Your task to perform on an android device: Clear the cart on ebay. Add alienware aurora to the cart on ebay Image 0: 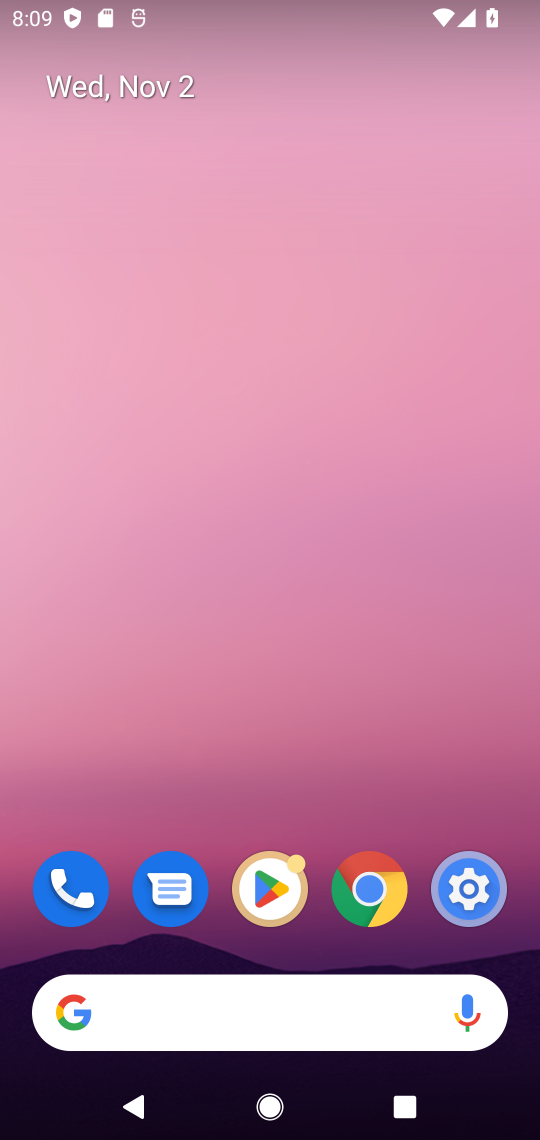
Step 0: drag from (326, 789) to (323, 65)
Your task to perform on an android device: Clear the cart on ebay. Add alienware aurora to the cart on ebay Image 1: 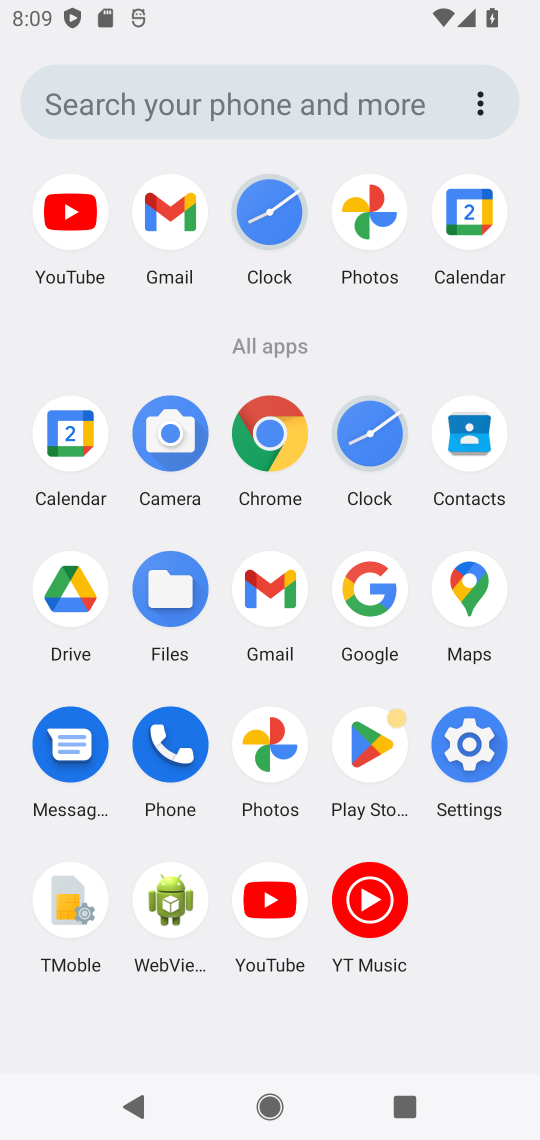
Step 1: click (270, 440)
Your task to perform on an android device: Clear the cart on ebay. Add alienware aurora to the cart on ebay Image 2: 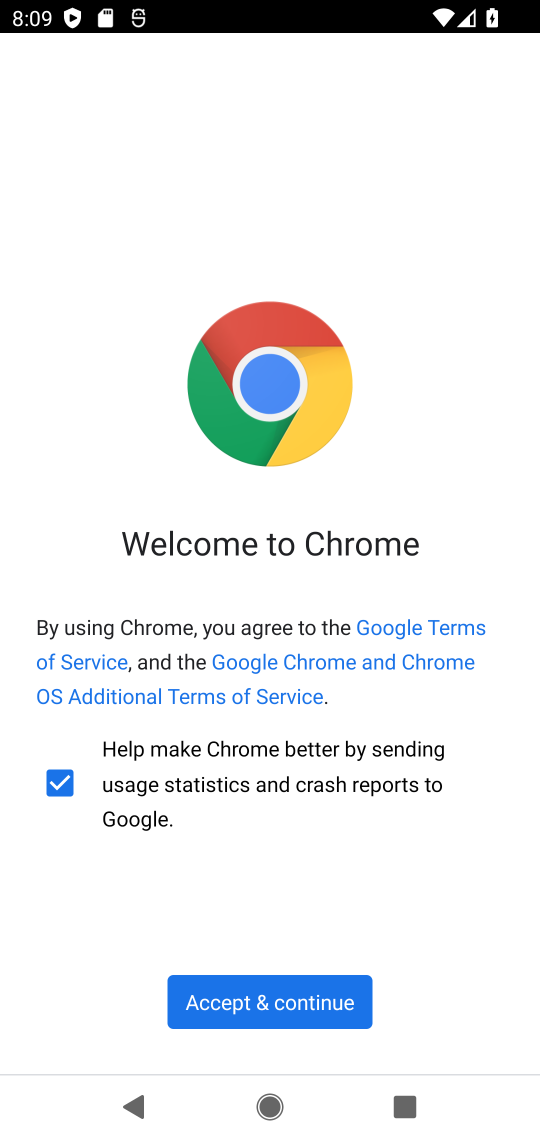
Step 2: click (283, 1006)
Your task to perform on an android device: Clear the cart on ebay. Add alienware aurora to the cart on ebay Image 3: 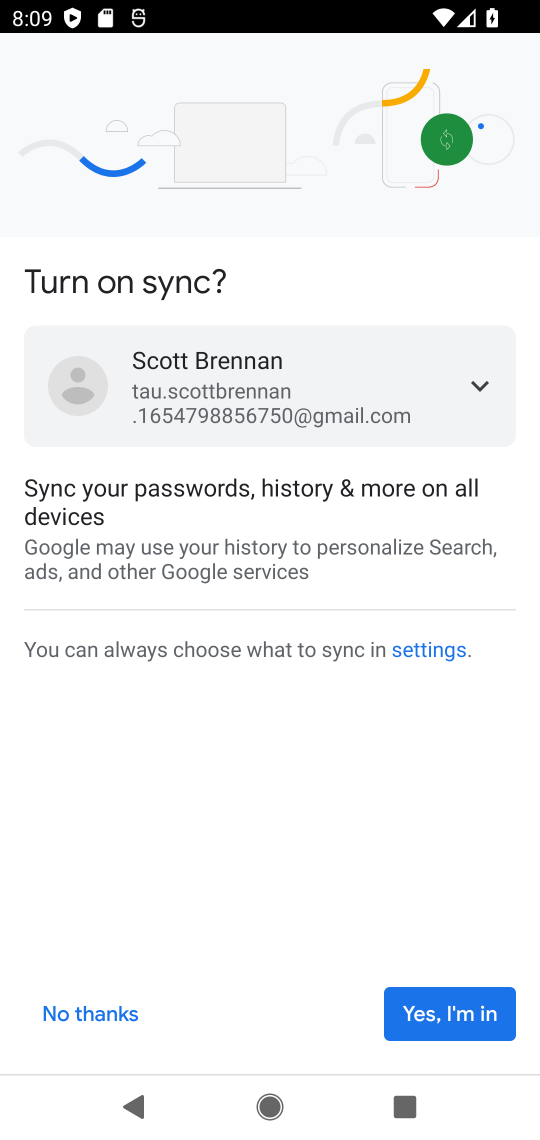
Step 3: click (438, 1014)
Your task to perform on an android device: Clear the cart on ebay. Add alienware aurora to the cart on ebay Image 4: 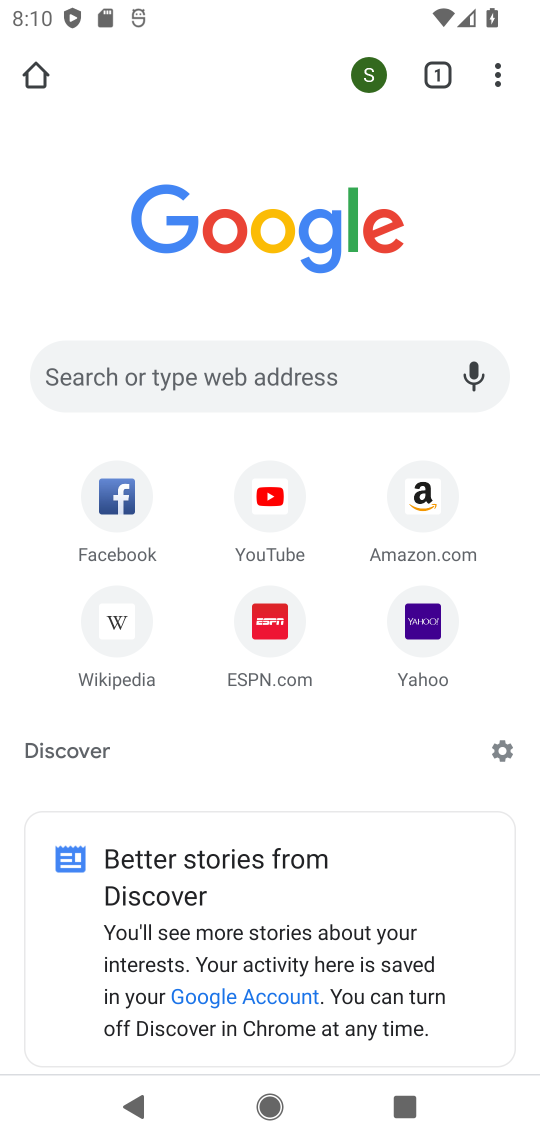
Step 4: click (190, 371)
Your task to perform on an android device: Clear the cart on ebay. Add alienware aurora to the cart on ebay Image 5: 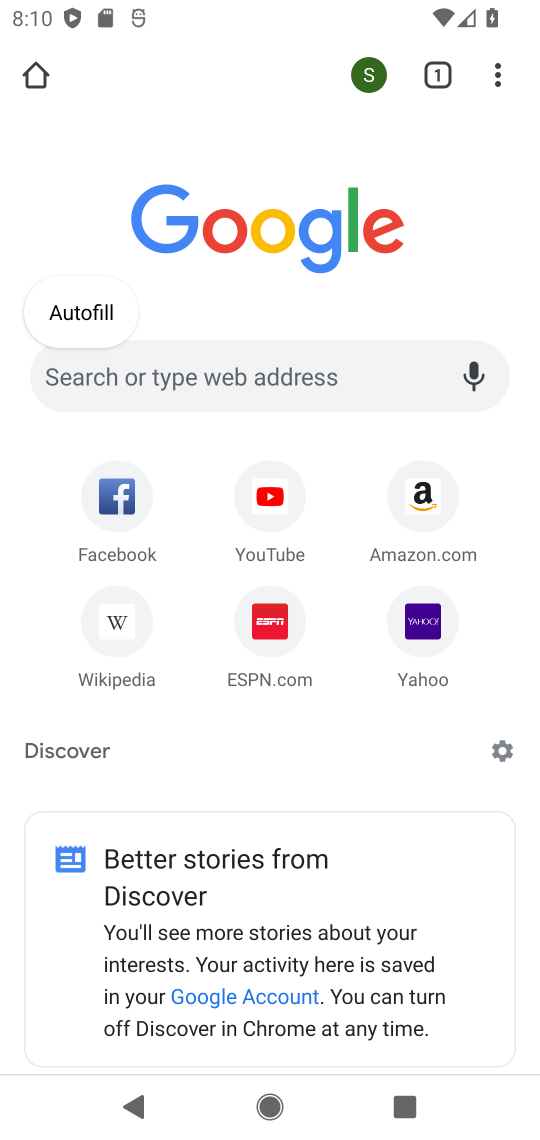
Step 5: click (117, 376)
Your task to perform on an android device: Clear the cart on ebay. Add alienware aurora to the cart on ebay Image 6: 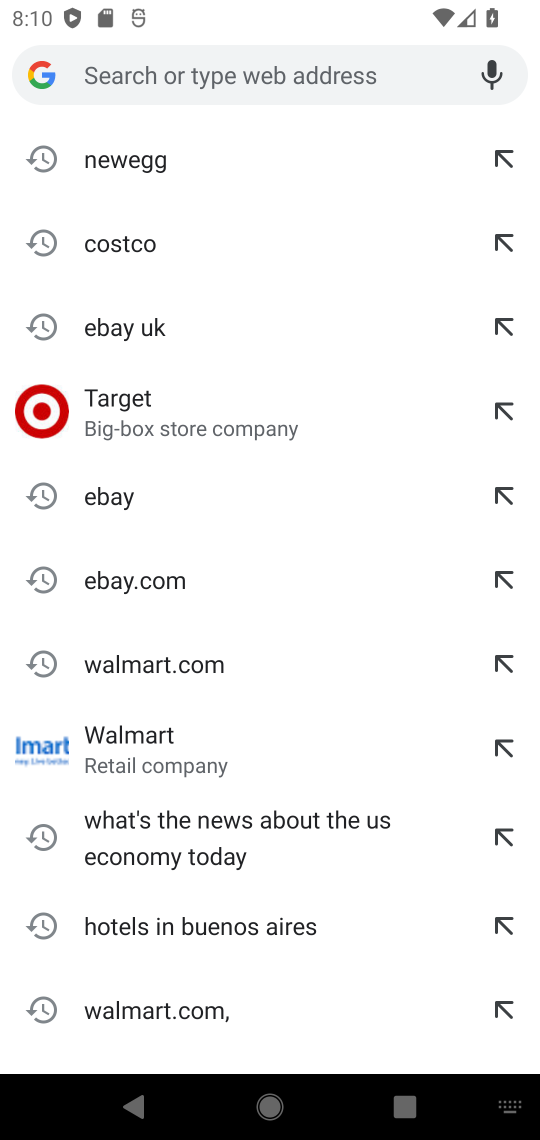
Step 6: type "ebay"
Your task to perform on an android device: Clear the cart on ebay. Add alienware aurora to the cart on ebay Image 7: 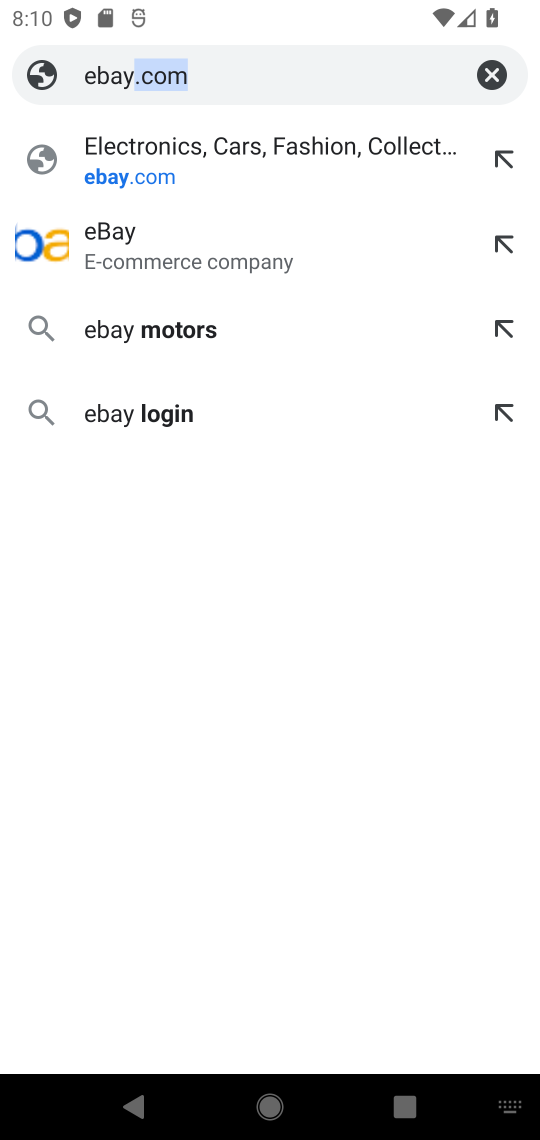
Step 7: click (165, 154)
Your task to perform on an android device: Clear the cart on ebay. Add alienware aurora to the cart on ebay Image 8: 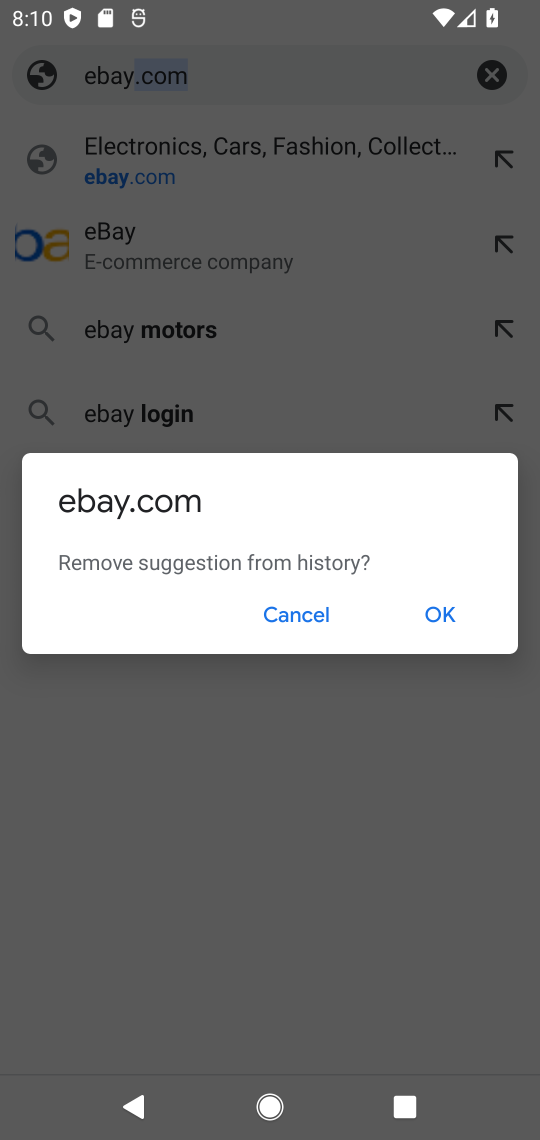
Step 8: click (113, 171)
Your task to perform on an android device: Clear the cart on ebay. Add alienware aurora to the cart on ebay Image 9: 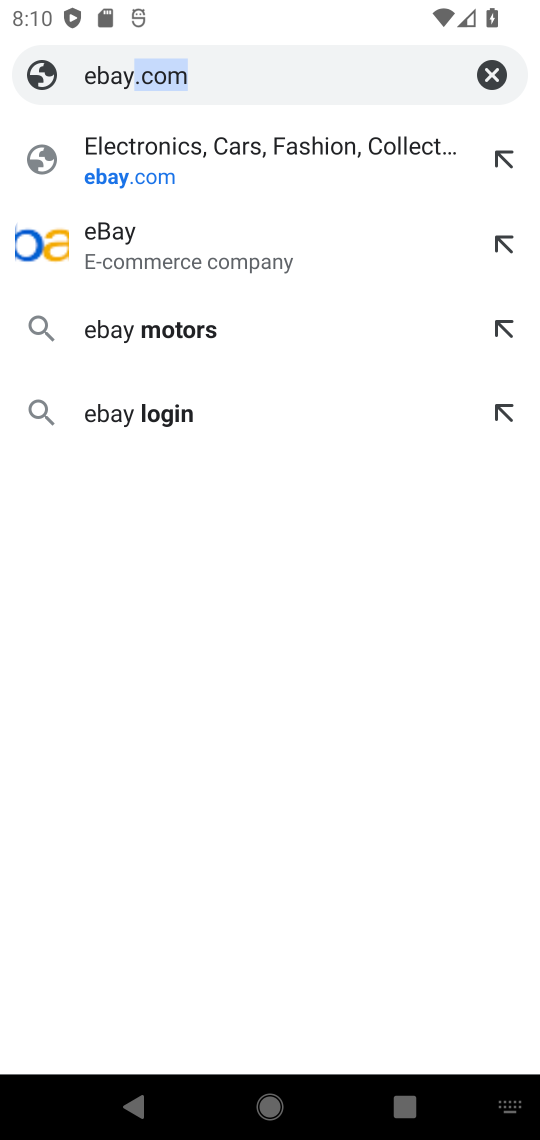
Step 9: click (98, 169)
Your task to perform on an android device: Clear the cart on ebay. Add alienware aurora to the cart on ebay Image 10: 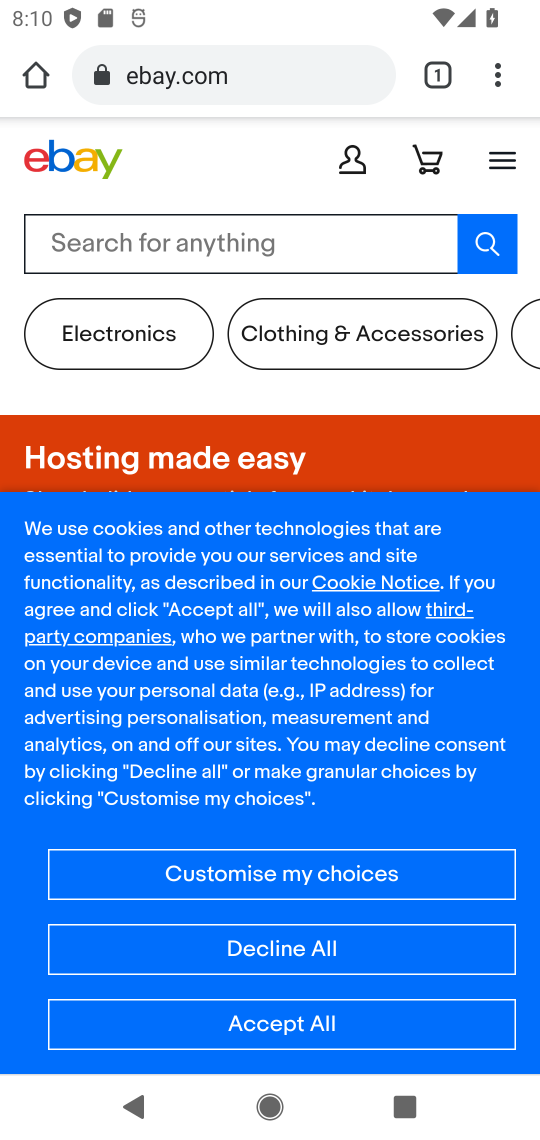
Step 10: click (102, 232)
Your task to perform on an android device: Clear the cart on ebay. Add alienware aurora to the cart on ebay Image 11: 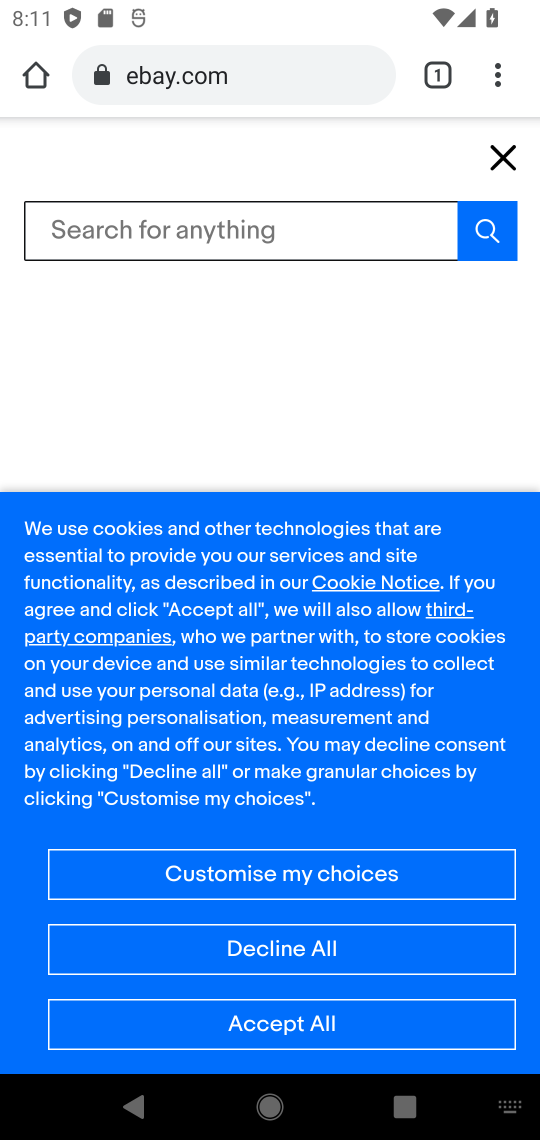
Step 11: type "alienware aurora"
Your task to perform on an android device: Clear the cart on ebay. Add alienware aurora to the cart on ebay Image 12: 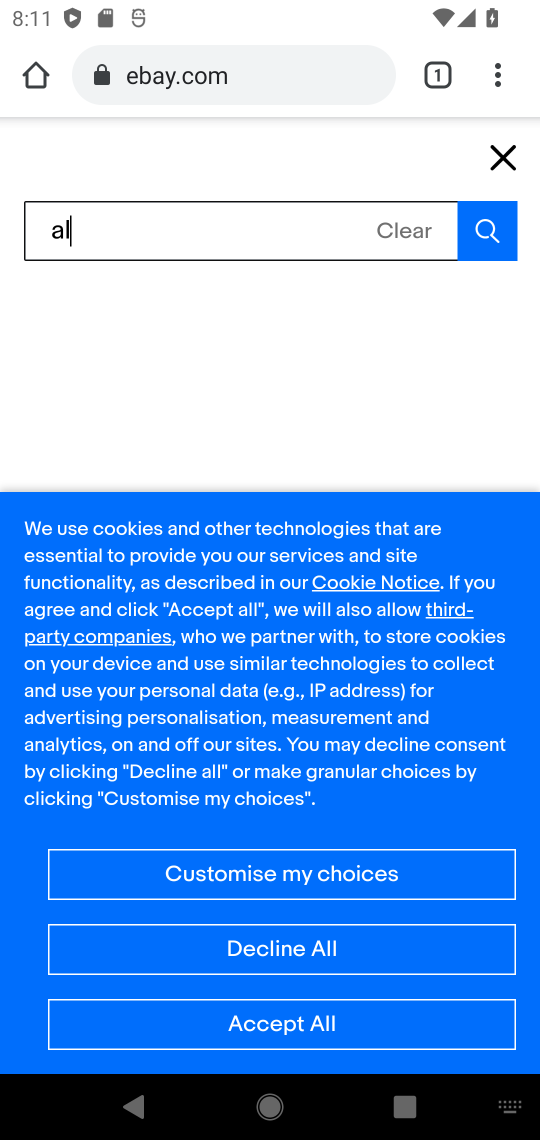
Step 12: type ""
Your task to perform on an android device: Clear the cart on ebay. Add alienware aurora to the cart on ebay Image 13: 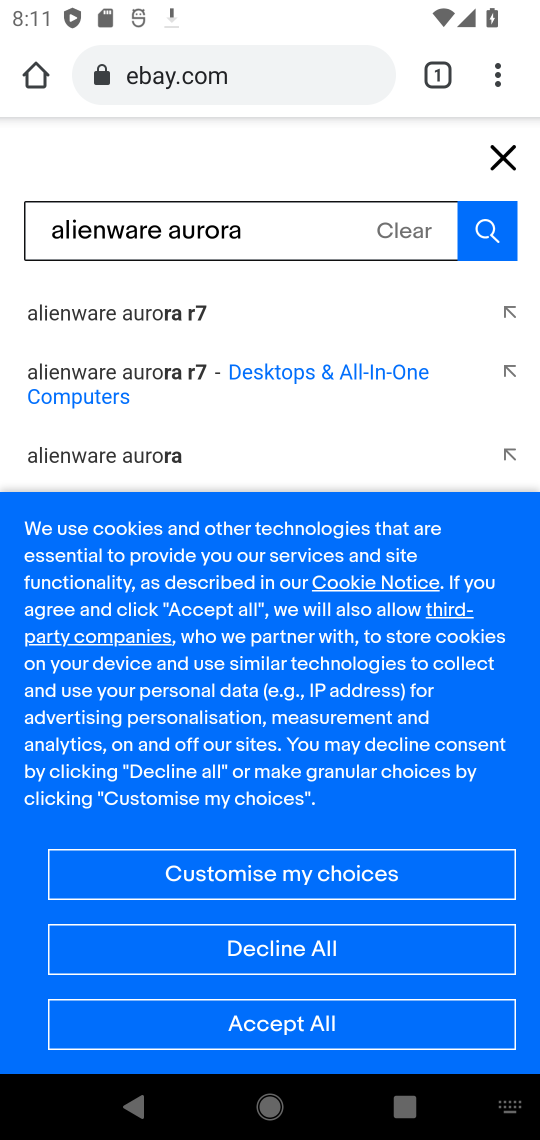
Step 13: click (244, 373)
Your task to perform on an android device: Clear the cart on ebay. Add alienware aurora to the cart on ebay Image 14: 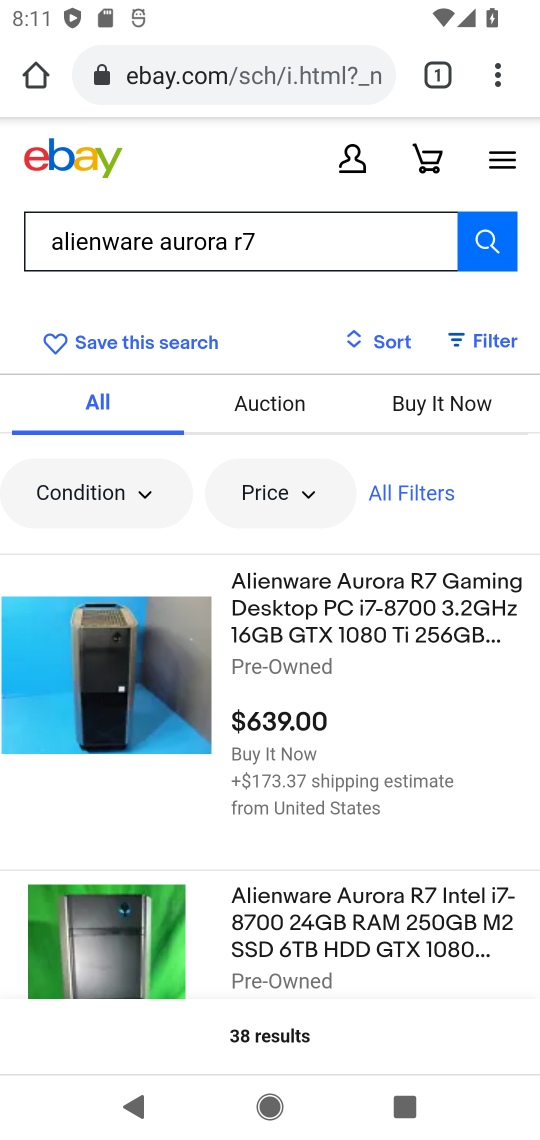
Step 14: click (349, 601)
Your task to perform on an android device: Clear the cart on ebay. Add alienware aurora to the cart on ebay Image 15: 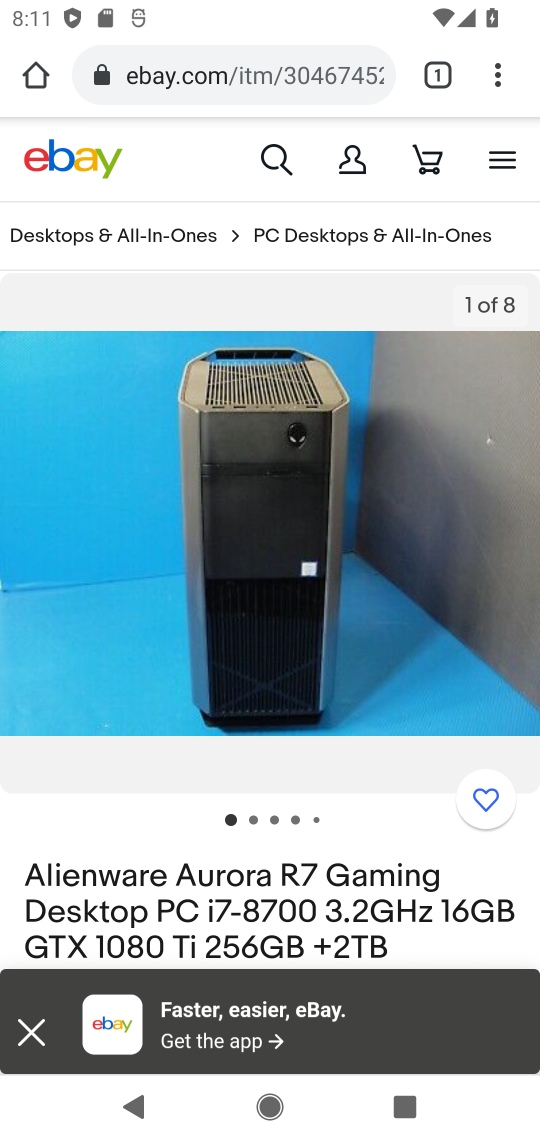
Step 15: drag from (270, 888) to (326, 232)
Your task to perform on an android device: Clear the cart on ebay. Add alienware aurora to the cart on ebay Image 16: 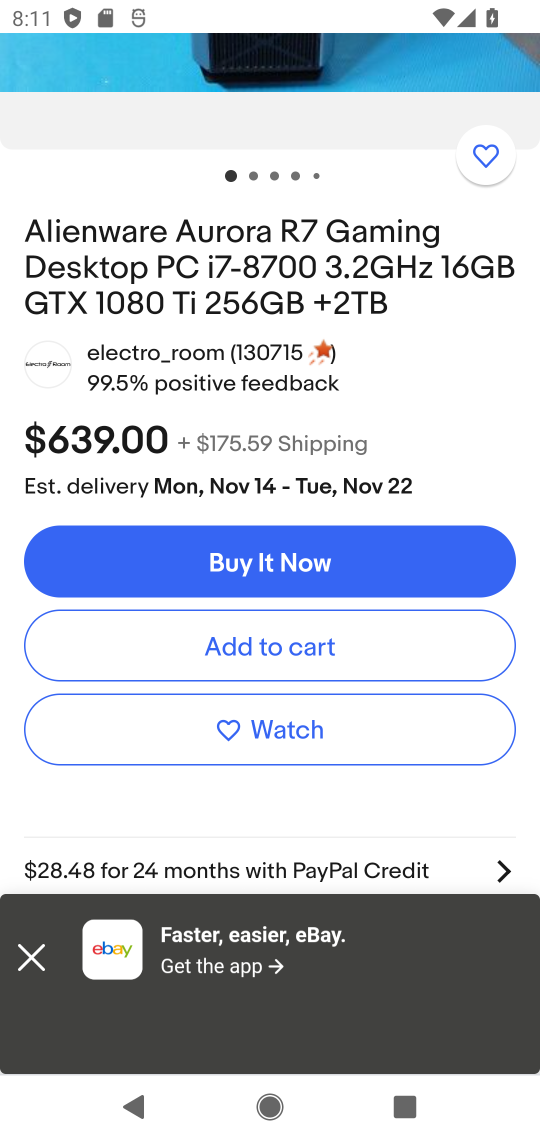
Step 16: click (266, 645)
Your task to perform on an android device: Clear the cart on ebay. Add alienware aurora to the cart on ebay Image 17: 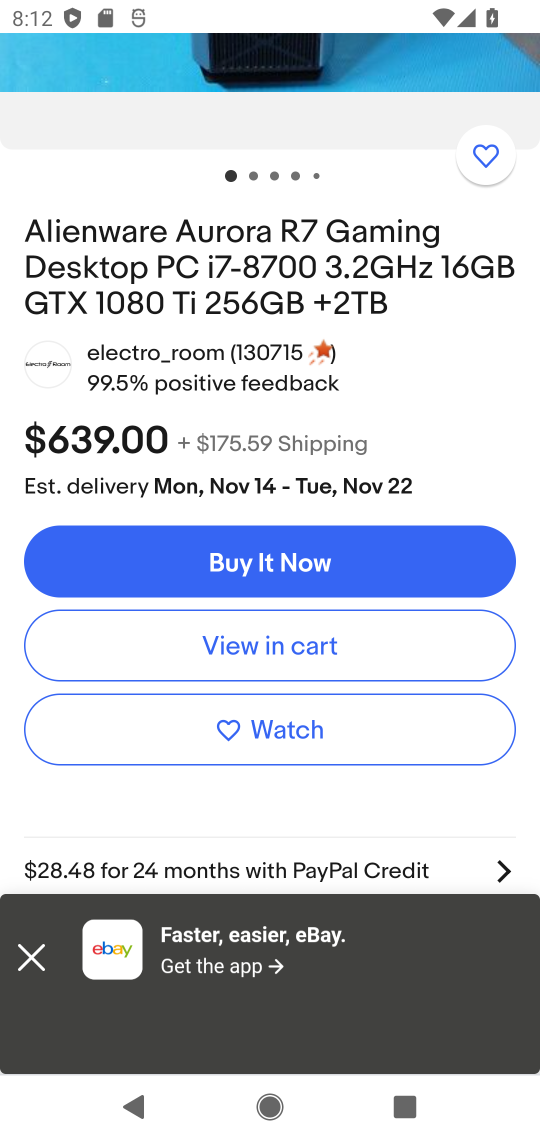
Step 17: click (279, 641)
Your task to perform on an android device: Clear the cart on ebay. Add alienware aurora to the cart on ebay Image 18: 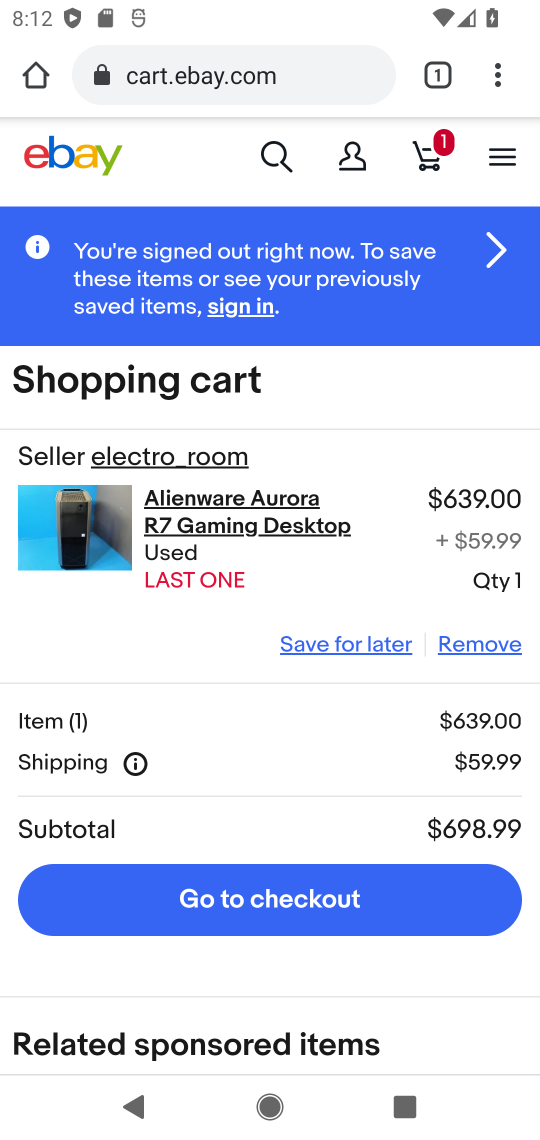
Step 18: task complete